Your task to perform on an android device: Open internet settings Image 0: 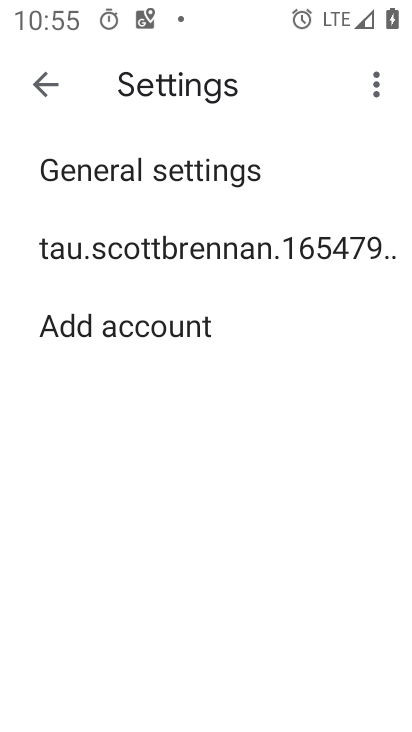
Step 0: click (42, 81)
Your task to perform on an android device: Open internet settings Image 1: 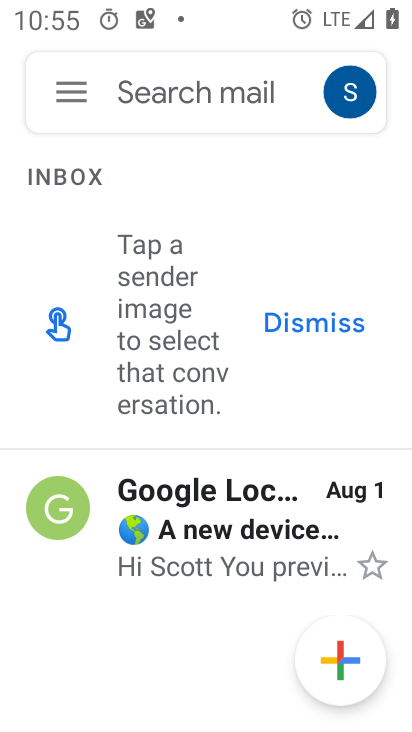
Step 1: press home button
Your task to perform on an android device: Open internet settings Image 2: 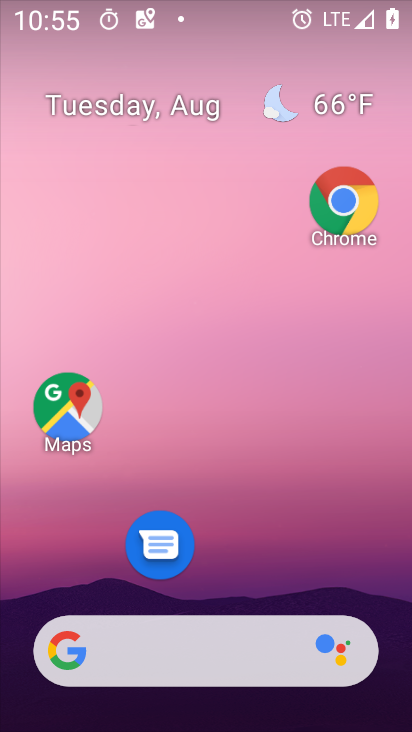
Step 2: drag from (140, 647) to (222, 48)
Your task to perform on an android device: Open internet settings Image 3: 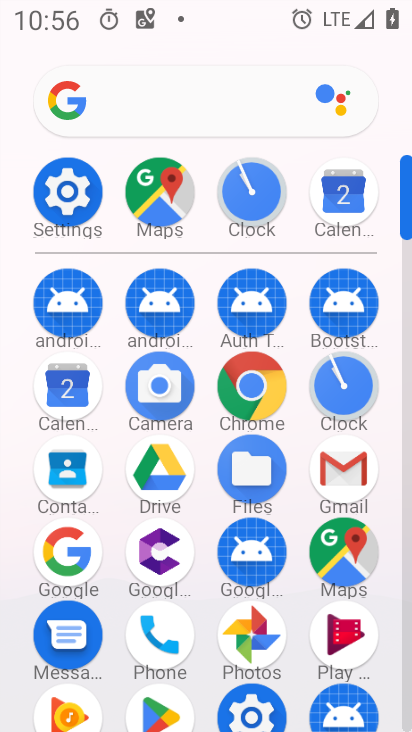
Step 3: click (50, 203)
Your task to perform on an android device: Open internet settings Image 4: 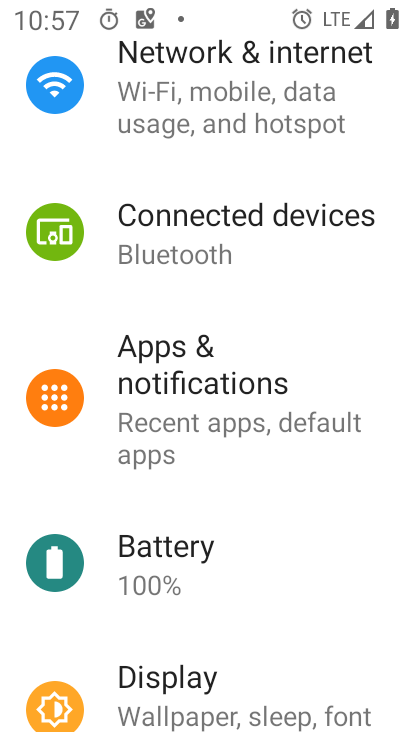
Step 4: drag from (191, 306) to (166, 658)
Your task to perform on an android device: Open internet settings Image 5: 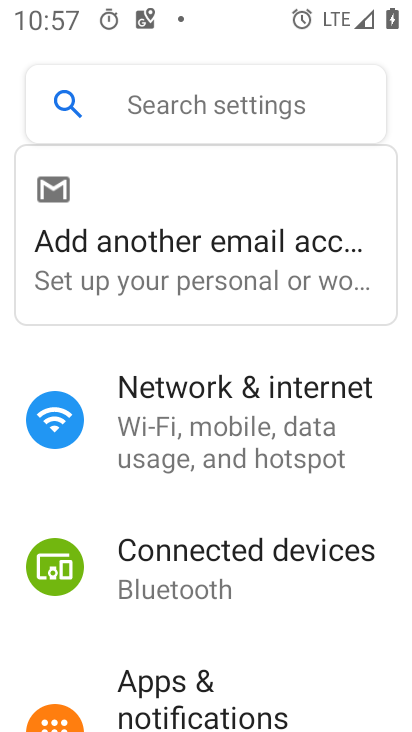
Step 5: click (261, 402)
Your task to perform on an android device: Open internet settings Image 6: 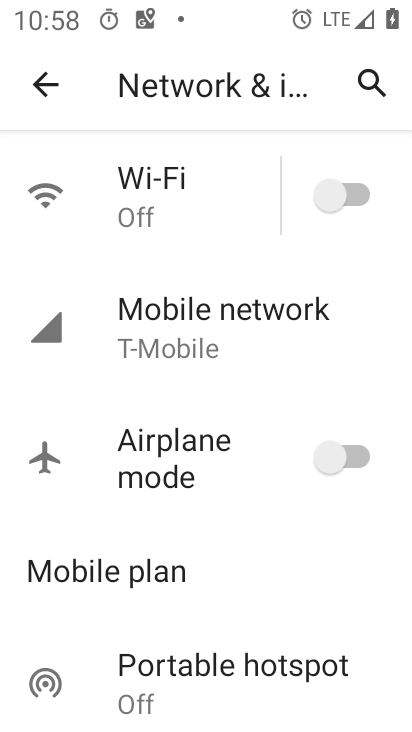
Step 6: click (219, 330)
Your task to perform on an android device: Open internet settings Image 7: 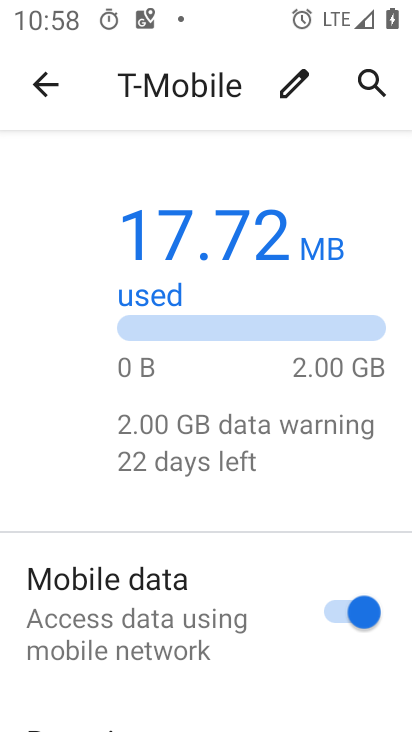
Step 7: task complete